Your task to perform on an android device: Open calendar and show me the third week of next month Image 0: 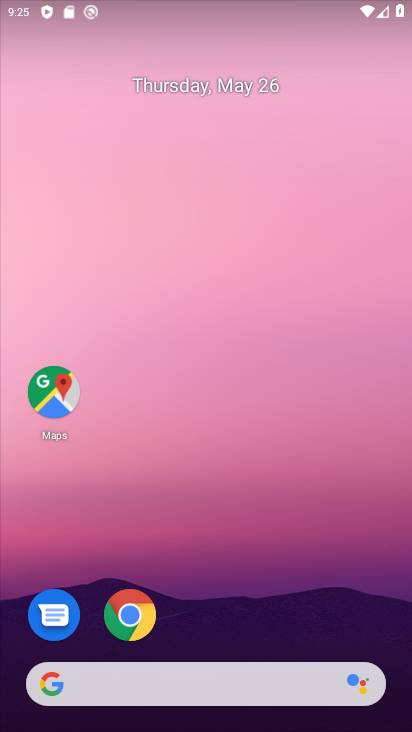
Step 0: drag from (114, 730) to (103, 181)
Your task to perform on an android device: Open calendar and show me the third week of next month Image 1: 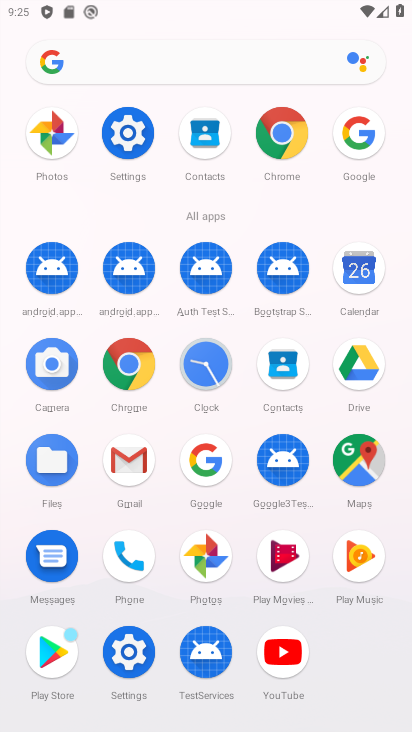
Step 1: click (340, 273)
Your task to perform on an android device: Open calendar and show me the third week of next month Image 2: 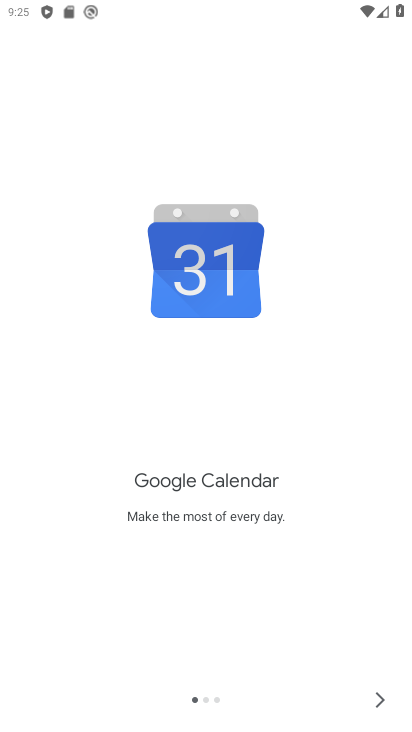
Step 2: click (369, 698)
Your task to perform on an android device: Open calendar and show me the third week of next month Image 3: 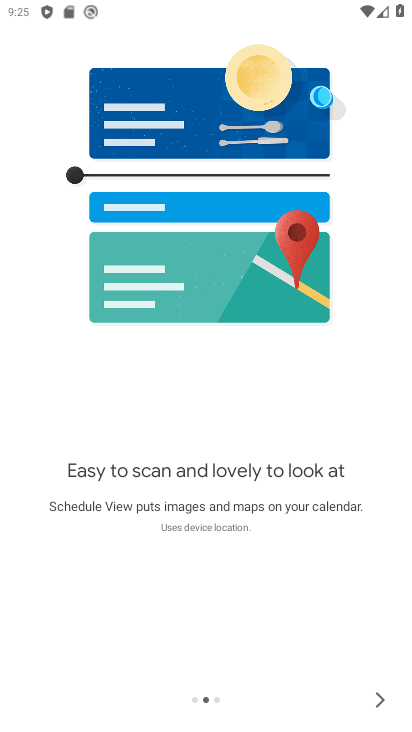
Step 3: click (376, 694)
Your task to perform on an android device: Open calendar and show me the third week of next month Image 4: 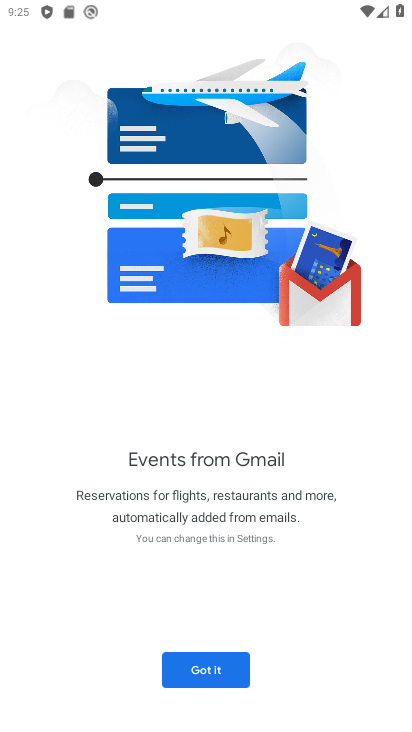
Step 4: click (220, 674)
Your task to perform on an android device: Open calendar and show me the third week of next month Image 5: 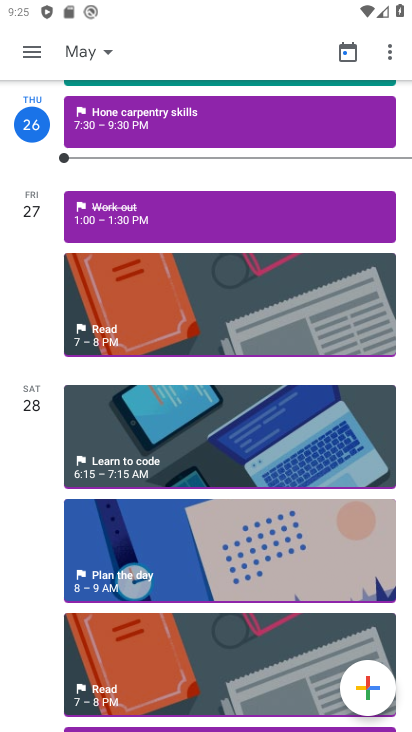
Step 5: click (96, 53)
Your task to perform on an android device: Open calendar and show me the third week of next month Image 6: 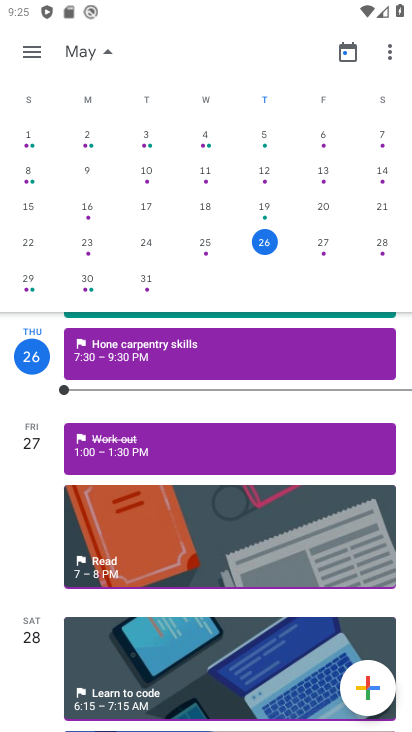
Step 6: drag from (374, 280) to (3, 250)
Your task to perform on an android device: Open calendar and show me the third week of next month Image 7: 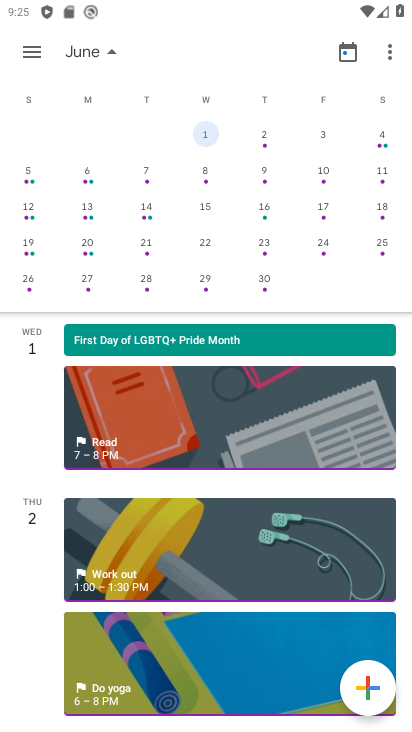
Step 7: click (106, 56)
Your task to perform on an android device: Open calendar and show me the third week of next month Image 8: 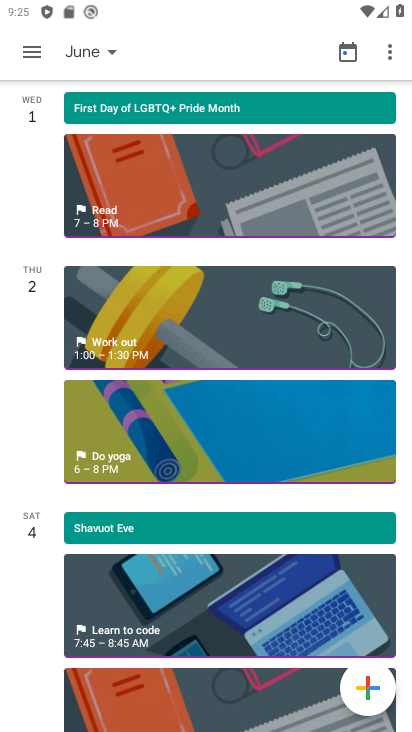
Step 8: click (25, 52)
Your task to perform on an android device: Open calendar and show me the third week of next month Image 9: 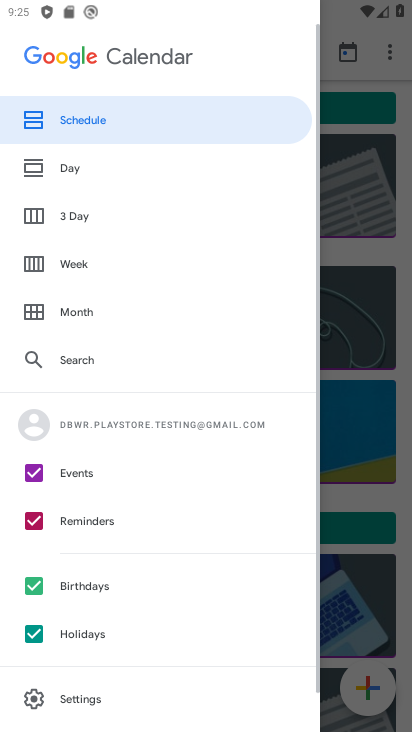
Step 9: click (79, 268)
Your task to perform on an android device: Open calendar and show me the third week of next month Image 10: 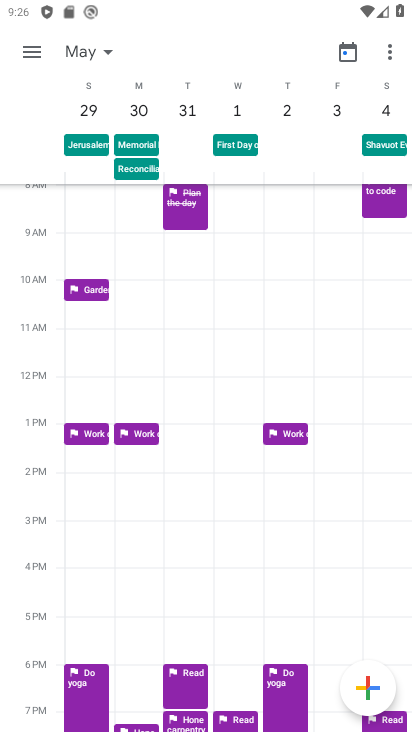
Step 10: task complete